Your task to perform on an android device: check data usage Image 0: 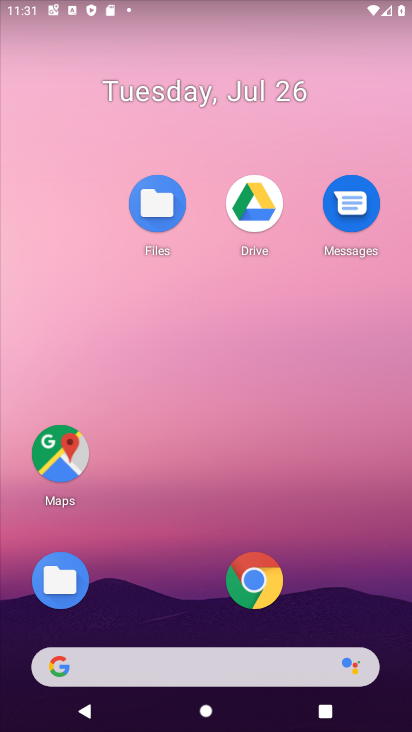
Step 0: drag from (305, 4) to (220, 449)
Your task to perform on an android device: check data usage Image 1: 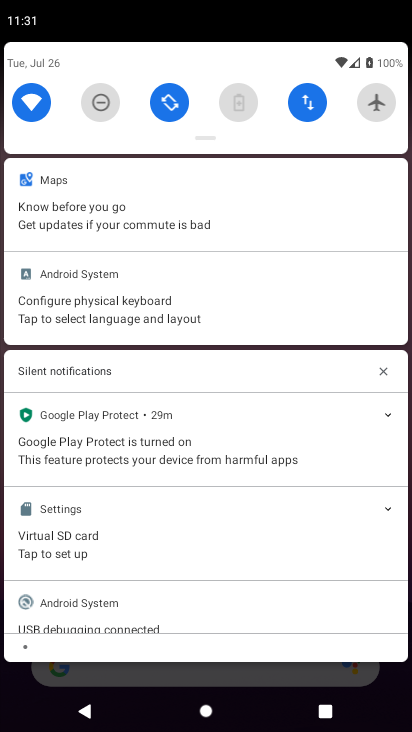
Step 1: click (303, 108)
Your task to perform on an android device: check data usage Image 2: 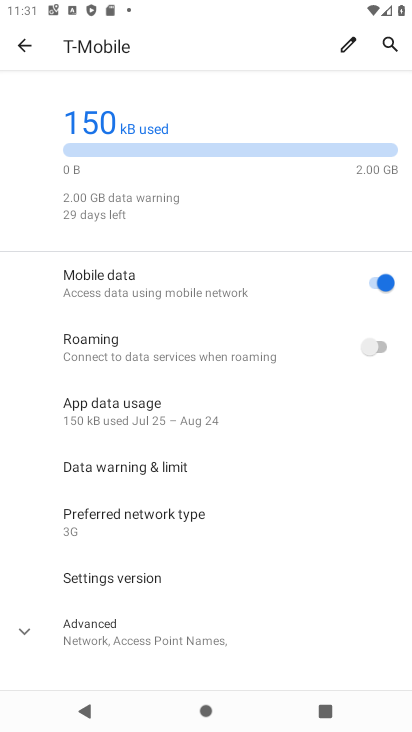
Step 2: task complete